Your task to perform on an android device: Play the last video I watched on Youtube Image 0: 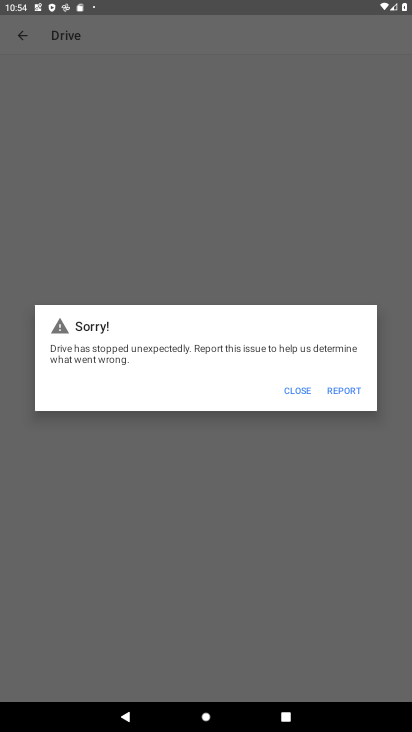
Step 0: click (304, 387)
Your task to perform on an android device: Play the last video I watched on Youtube Image 1: 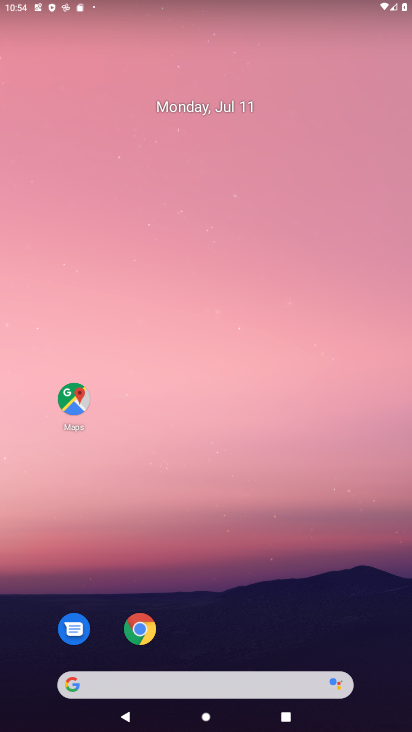
Step 1: drag from (229, 637) to (209, 22)
Your task to perform on an android device: Play the last video I watched on Youtube Image 2: 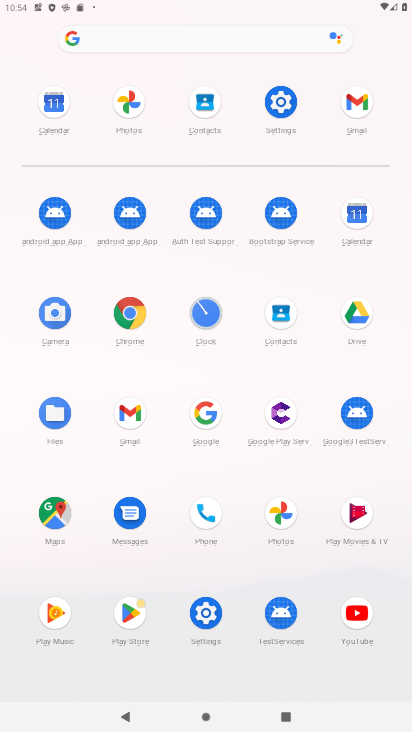
Step 2: click (359, 610)
Your task to perform on an android device: Play the last video I watched on Youtube Image 3: 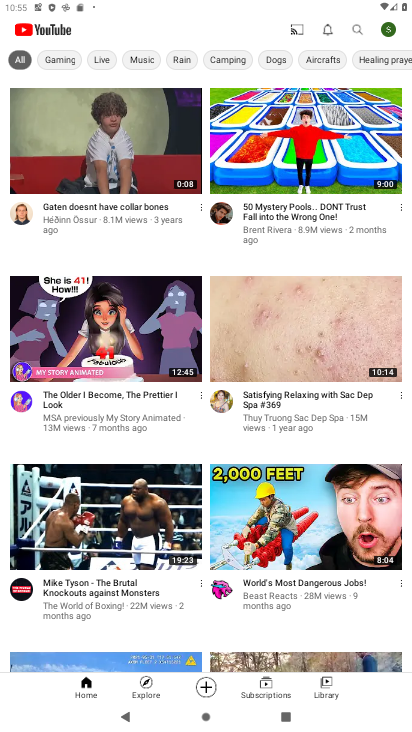
Step 3: click (334, 686)
Your task to perform on an android device: Play the last video I watched on Youtube Image 4: 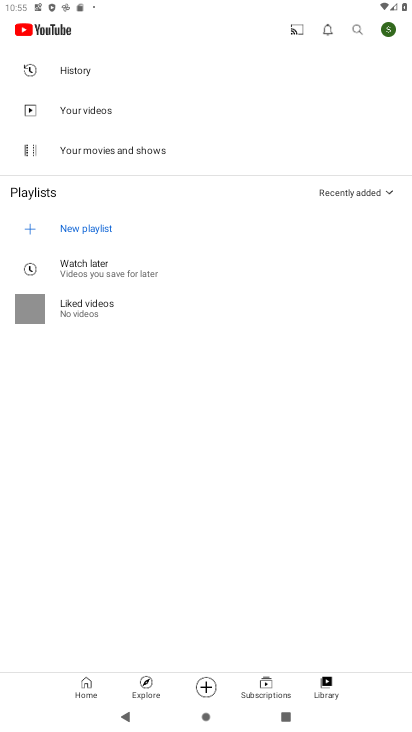
Step 4: click (85, 79)
Your task to perform on an android device: Play the last video I watched on Youtube Image 5: 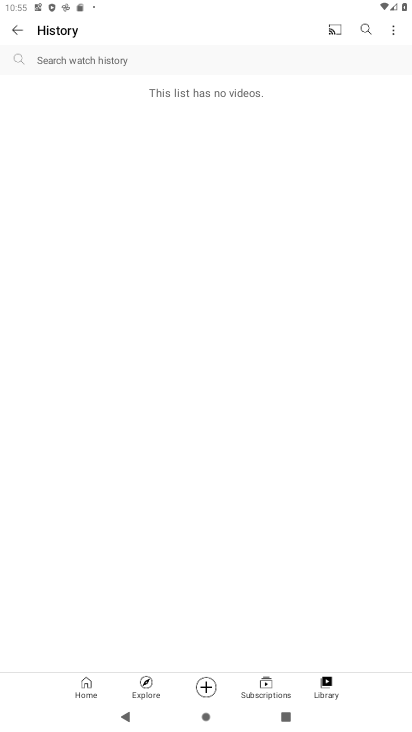
Step 5: task complete